Your task to perform on an android device: Show the shopping cart on walmart. Add "apple airpods pro" to the cart on walmart Image 0: 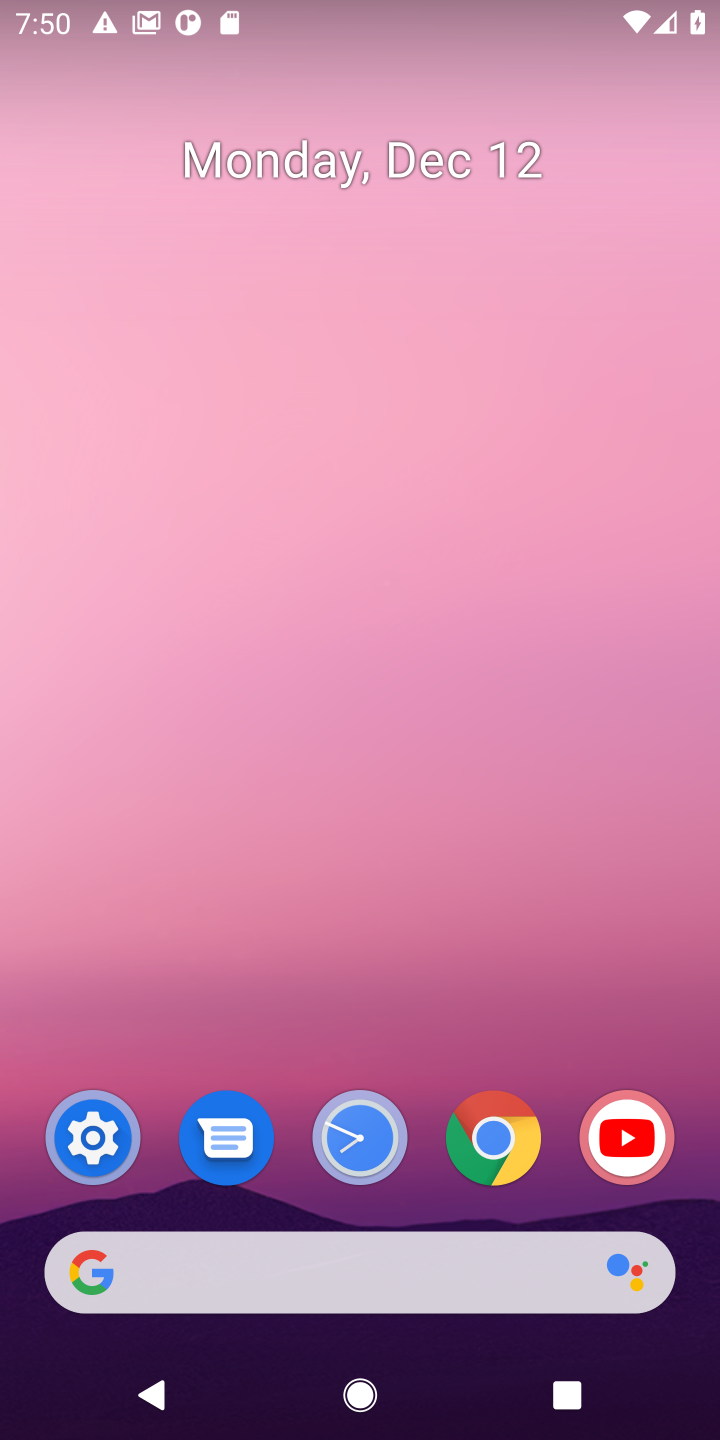
Step 0: drag from (317, 1242) to (269, 242)
Your task to perform on an android device: Show the shopping cart on walmart. Add "apple airpods pro" to the cart on walmart Image 1: 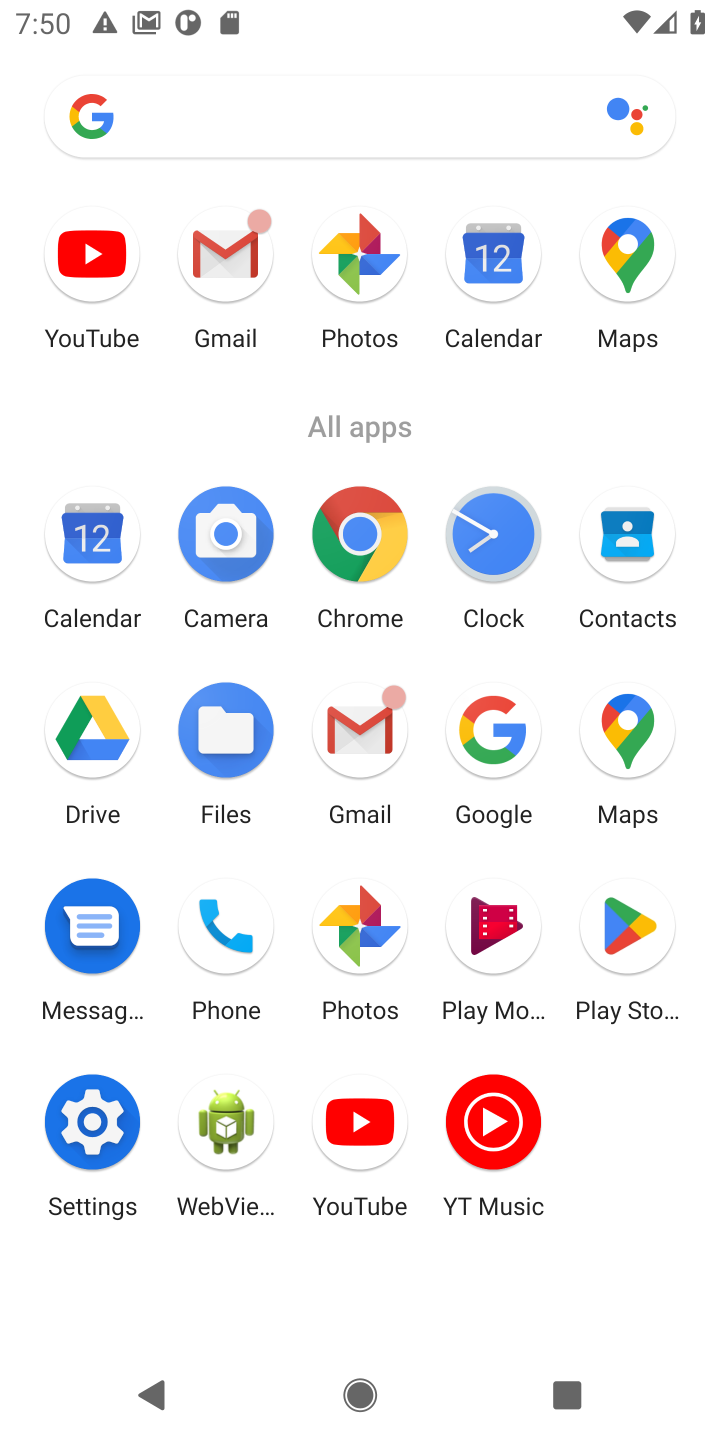
Step 1: click (496, 731)
Your task to perform on an android device: Show the shopping cart on walmart. Add "apple airpods pro" to the cart on walmart Image 2: 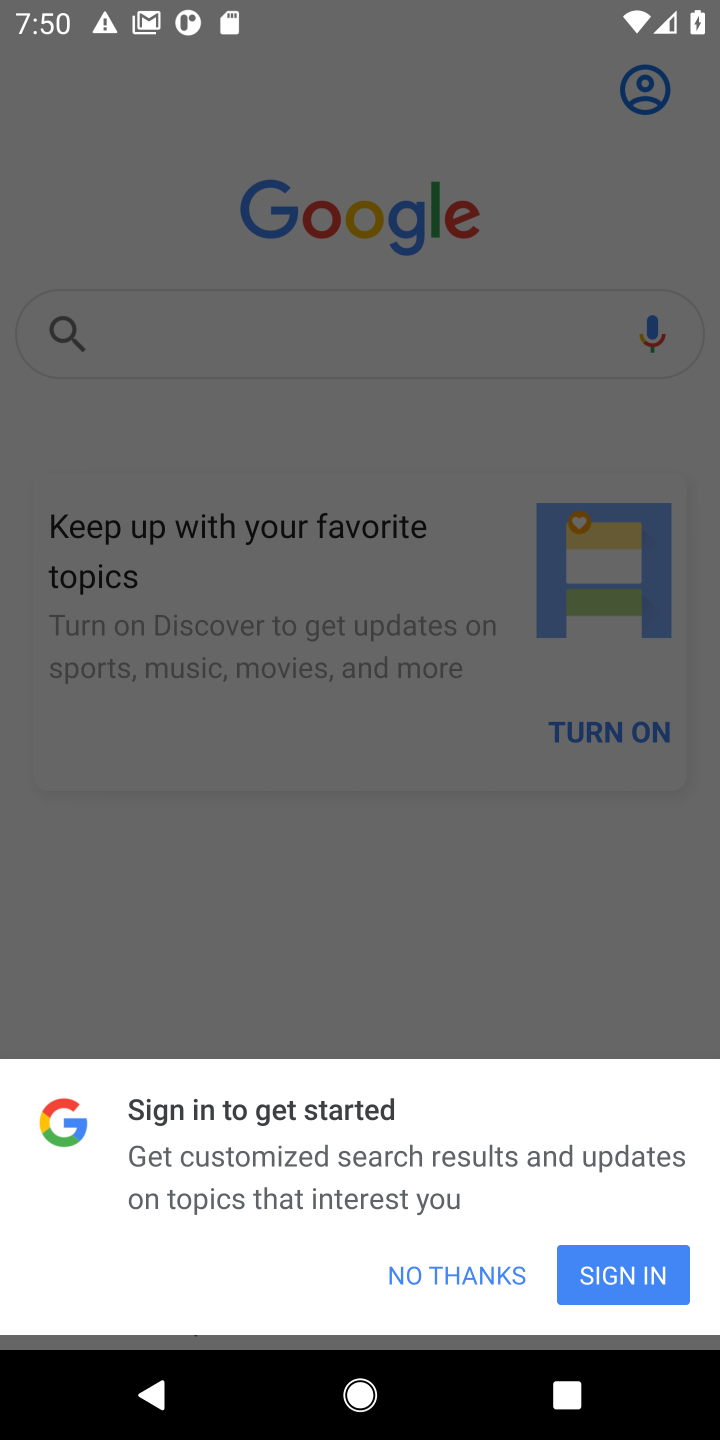
Step 2: click (461, 1252)
Your task to perform on an android device: Show the shopping cart on walmart. Add "apple airpods pro" to the cart on walmart Image 3: 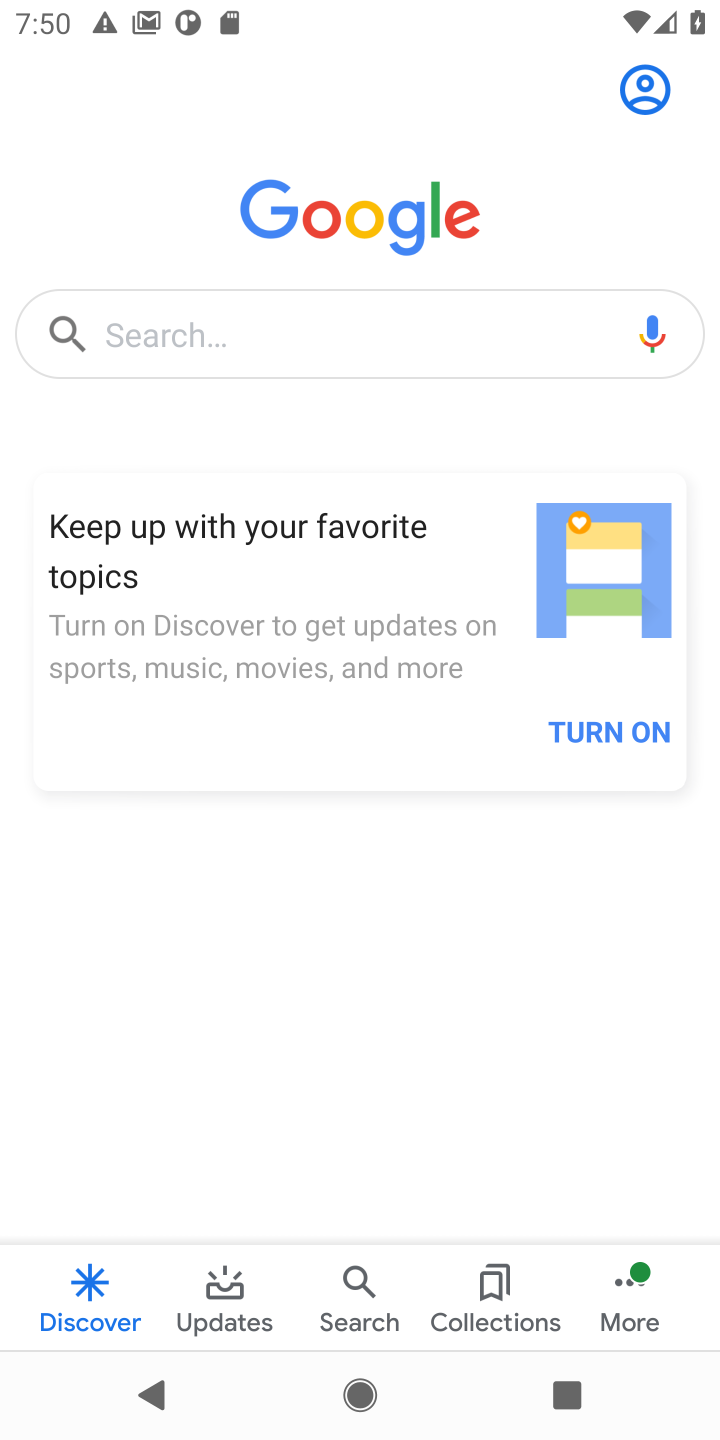
Step 3: click (140, 356)
Your task to perform on an android device: Show the shopping cart on walmart. Add "apple airpods pro" to the cart on walmart Image 4: 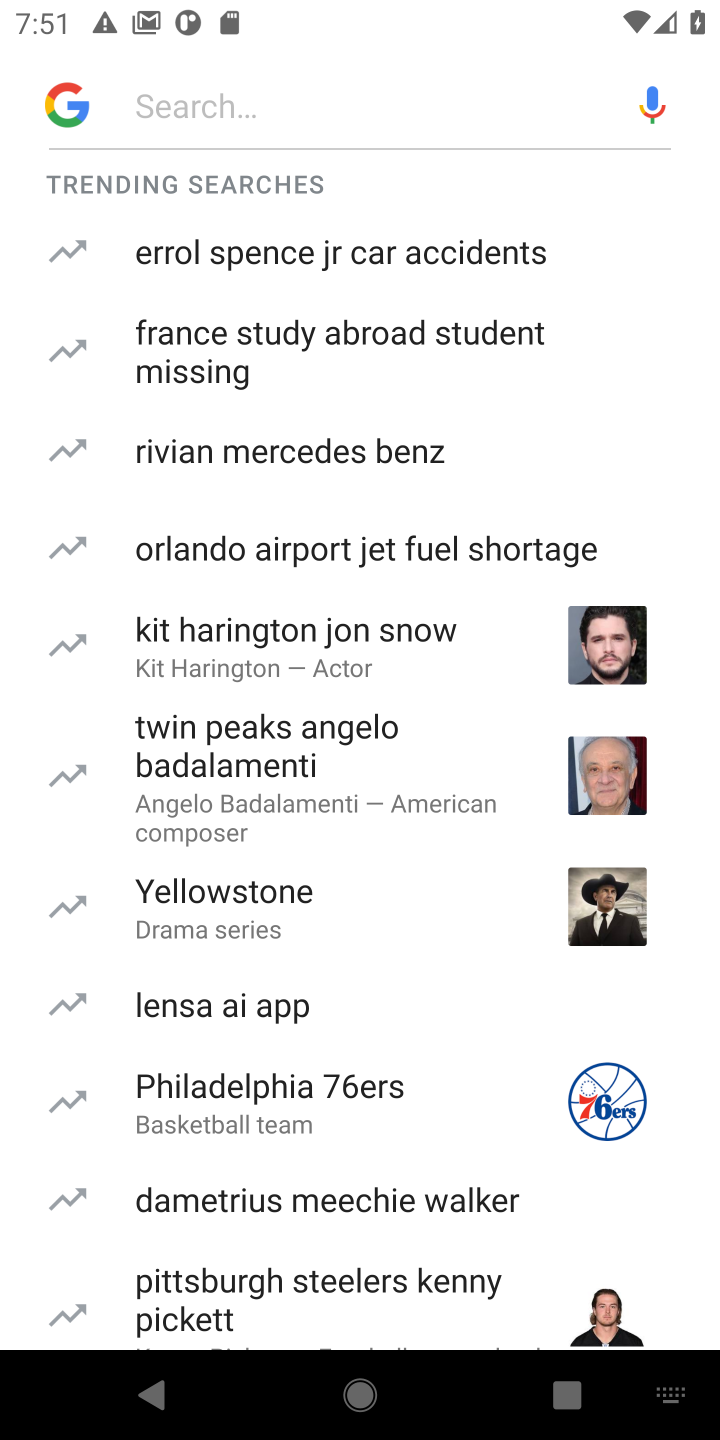
Step 4: type "walmart"
Your task to perform on an android device: Show the shopping cart on walmart. Add "apple airpods pro" to the cart on walmart Image 5: 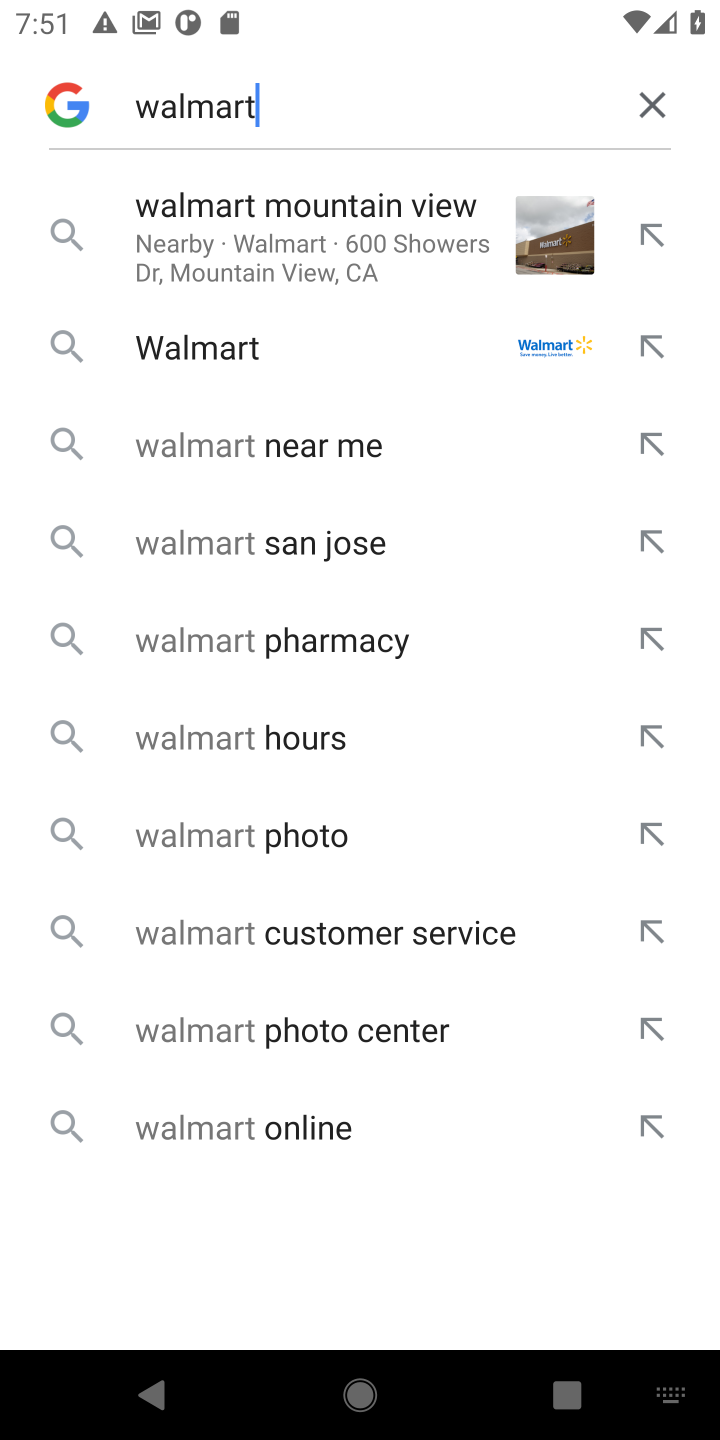
Step 5: click (539, 344)
Your task to perform on an android device: Show the shopping cart on walmart. Add "apple airpods pro" to the cart on walmart Image 6: 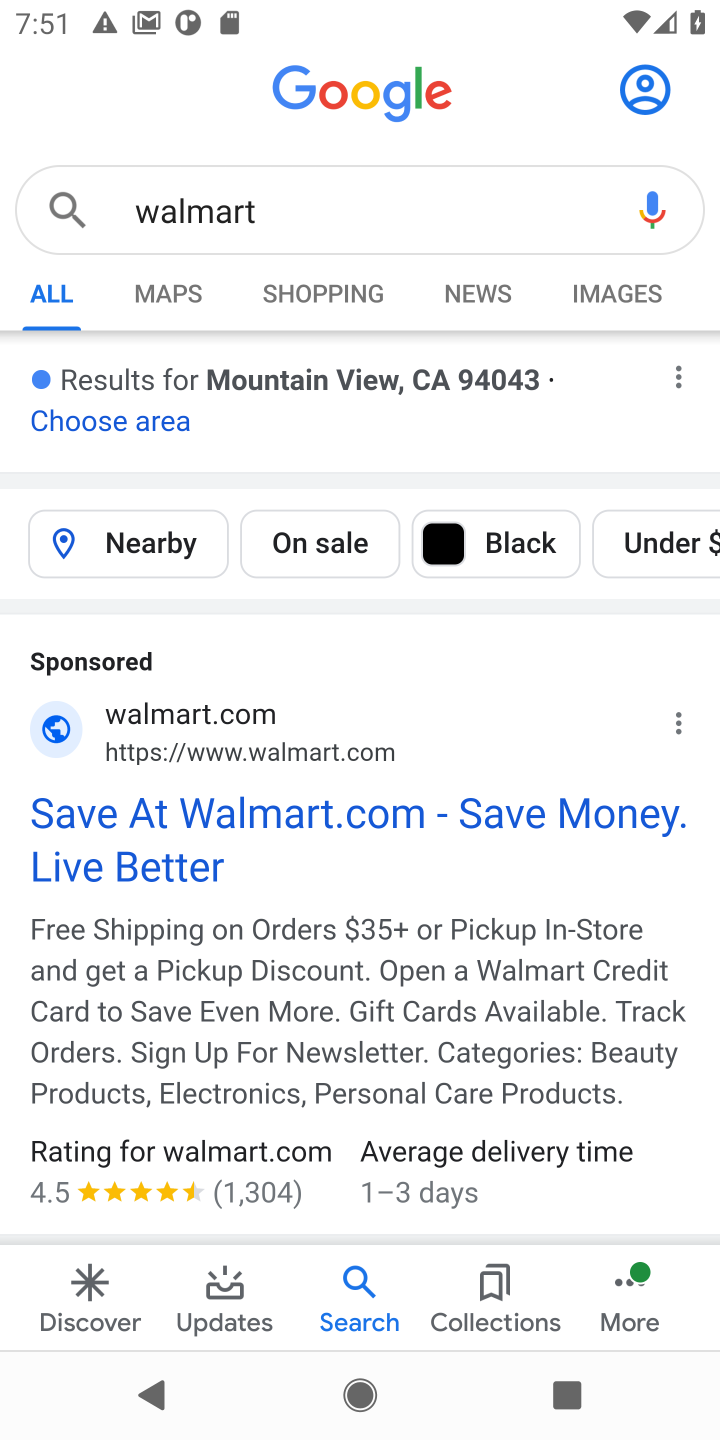
Step 6: click (216, 830)
Your task to perform on an android device: Show the shopping cart on walmart. Add "apple airpods pro" to the cart on walmart Image 7: 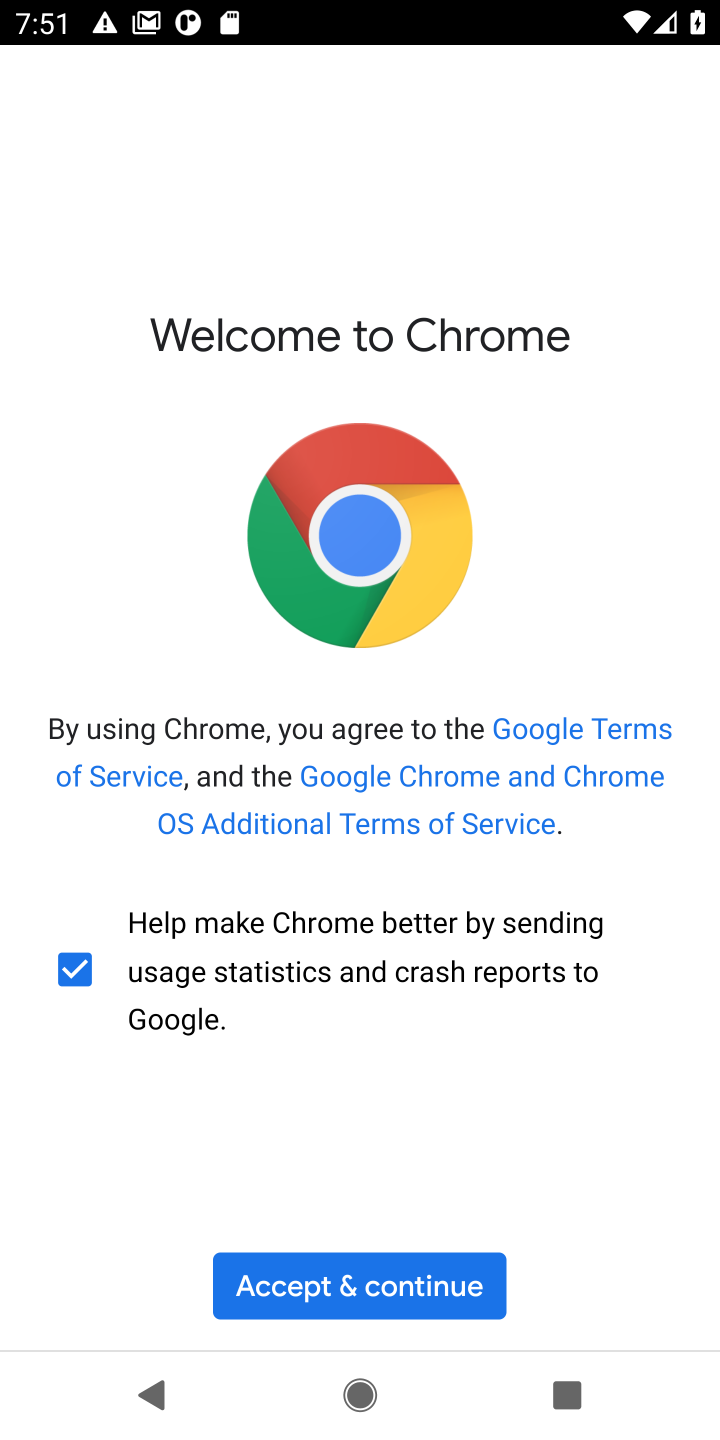
Step 7: click (409, 1297)
Your task to perform on an android device: Show the shopping cart on walmart. Add "apple airpods pro" to the cart on walmart Image 8: 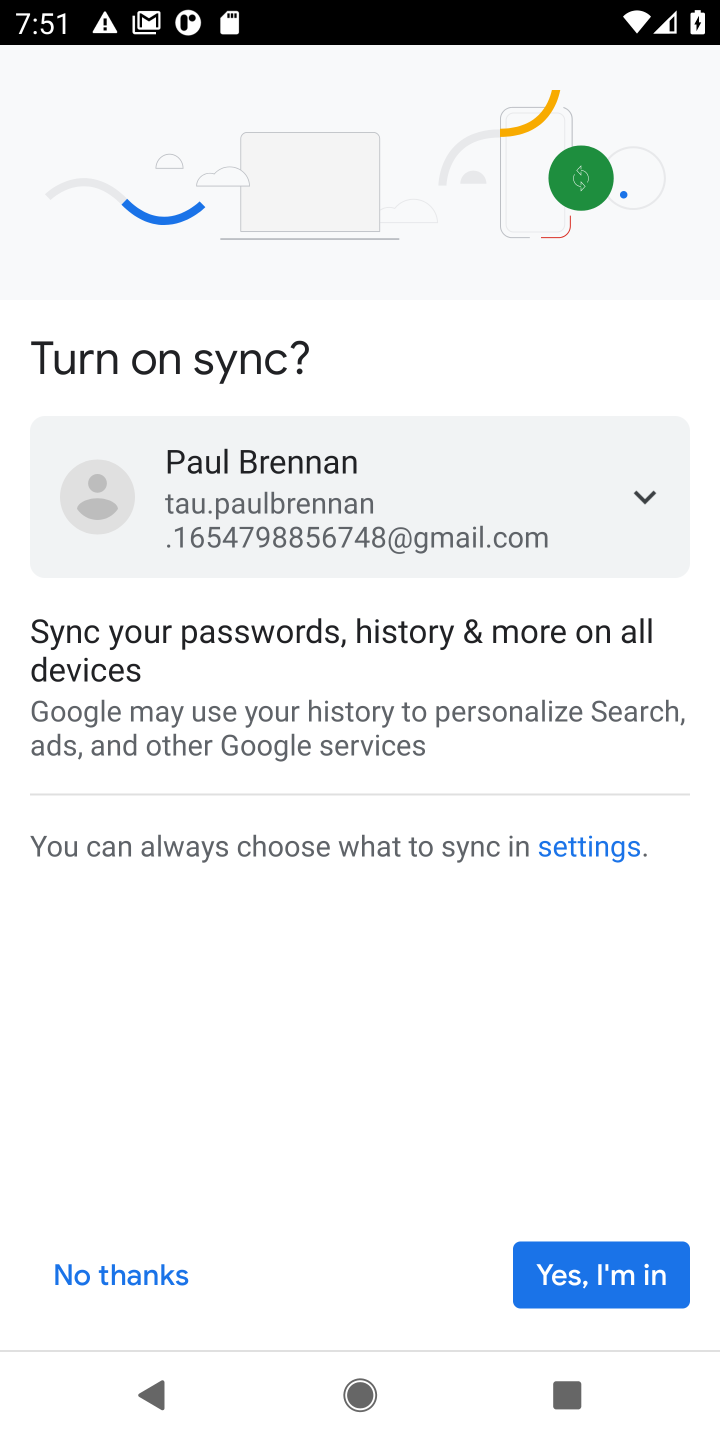
Step 8: click (627, 1295)
Your task to perform on an android device: Show the shopping cart on walmart. Add "apple airpods pro" to the cart on walmart Image 9: 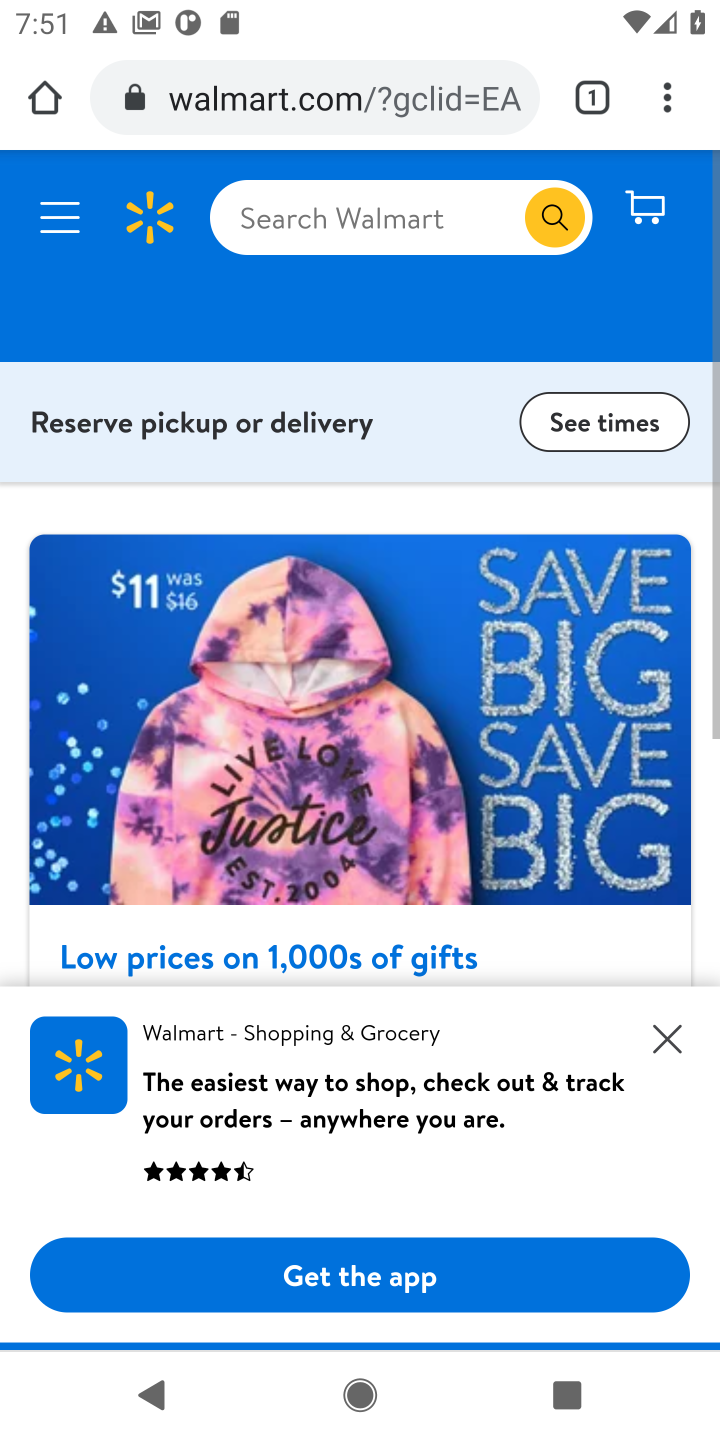
Step 9: click (229, 221)
Your task to perform on an android device: Show the shopping cart on walmart. Add "apple airpods pro" to the cart on walmart Image 10: 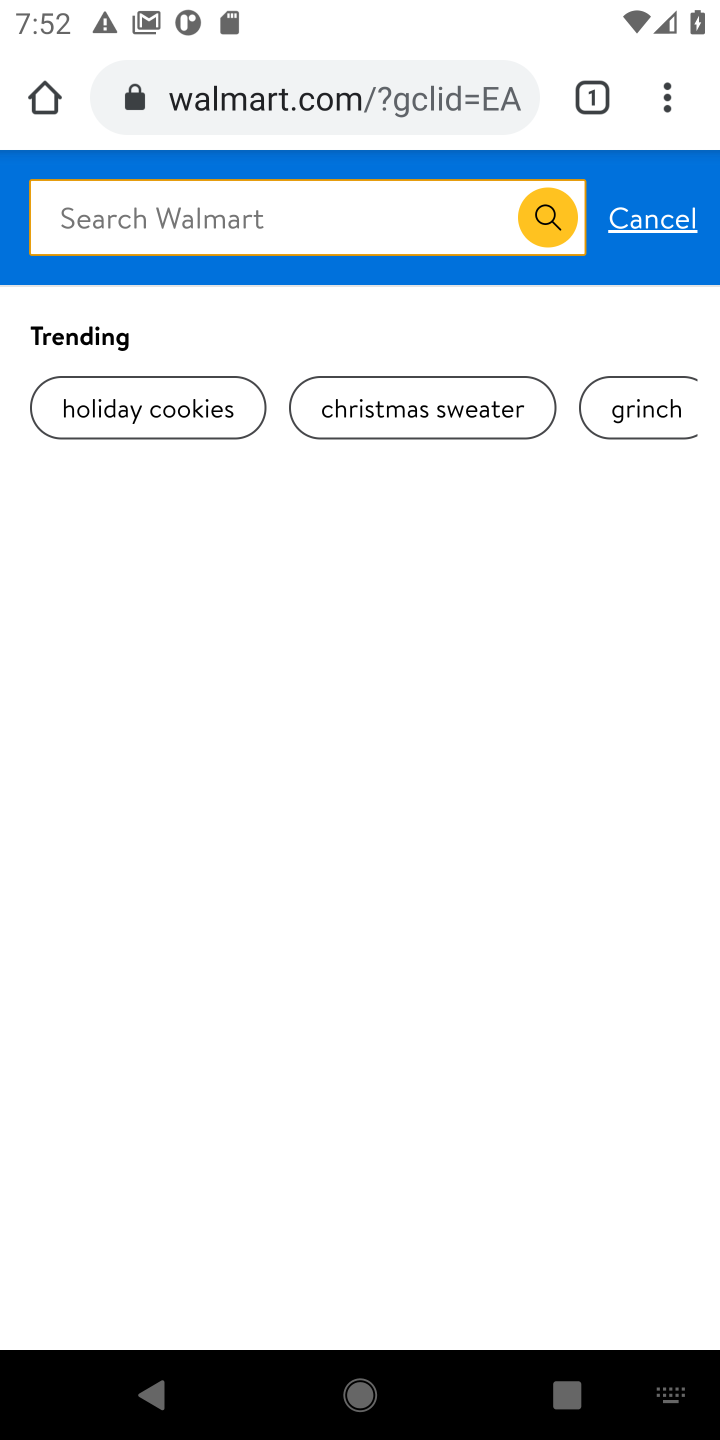
Step 10: type "apple airpods pro"
Your task to perform on an android device: Show the shopping cart on walmart. Add "apple airpods pro" to the cart on walmart Image 11: 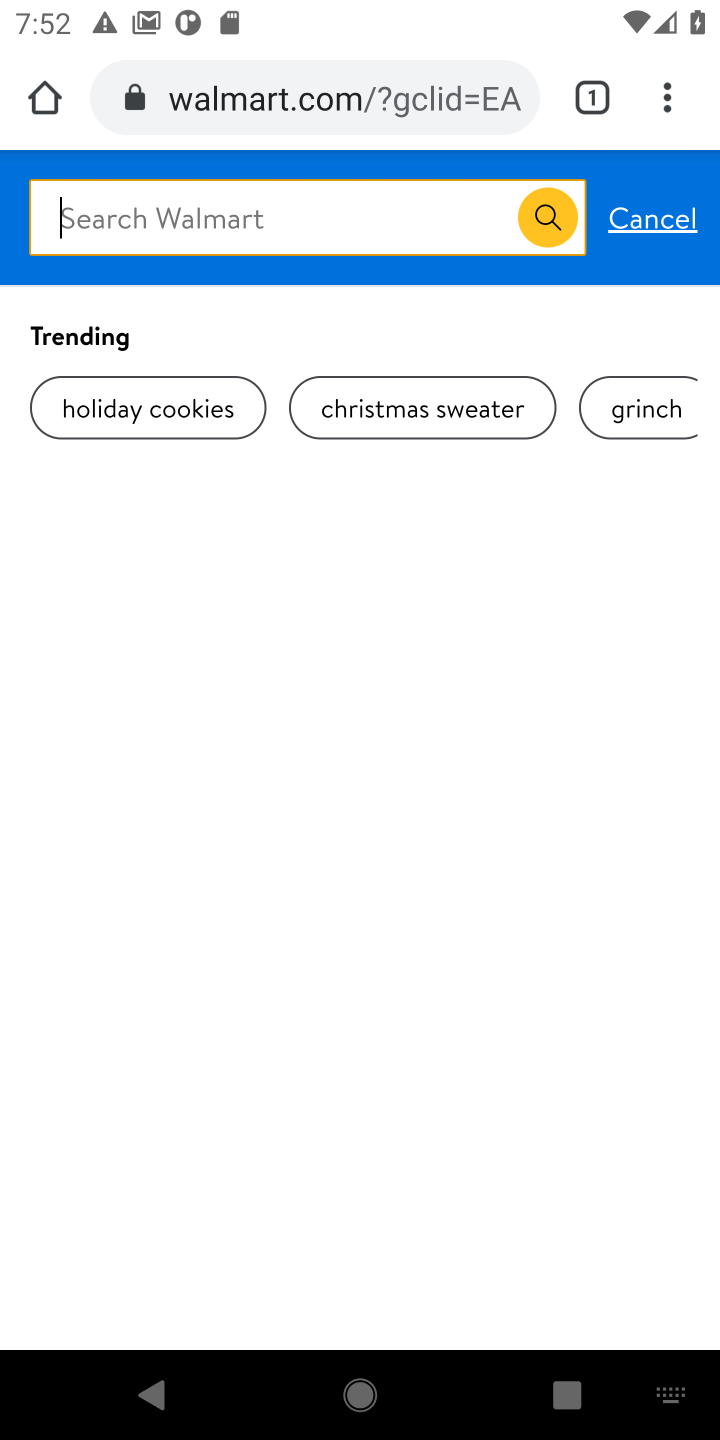
Step 11: click (527, 204)
Your task to perform on an android device: Show the shopping cart on walmart. Add "apple airpods pro" to the cart on walmart Image 12: 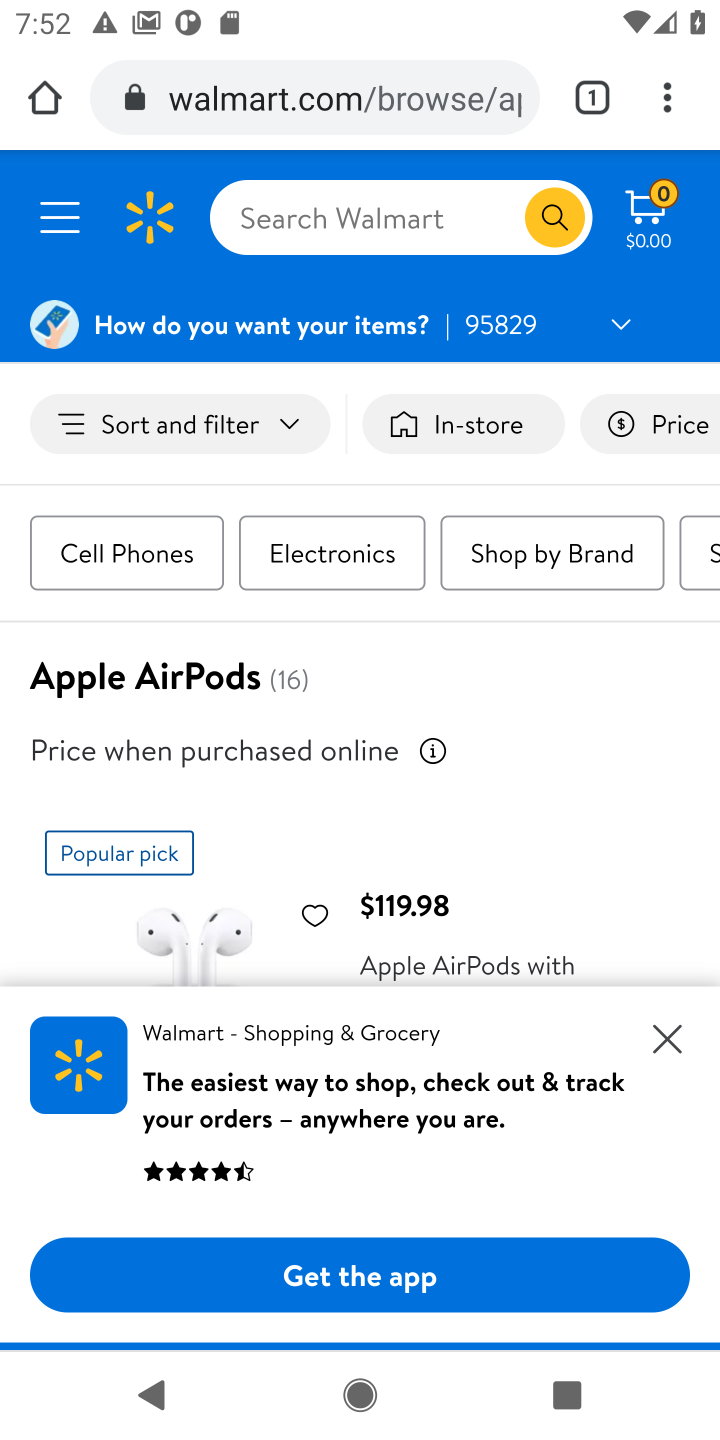
Step 12: click (674, 1032)
Your task to perform on an android device: Show the shopping cart on walmart. Add "apple airpods pro" to the cart on walmart Image 13: 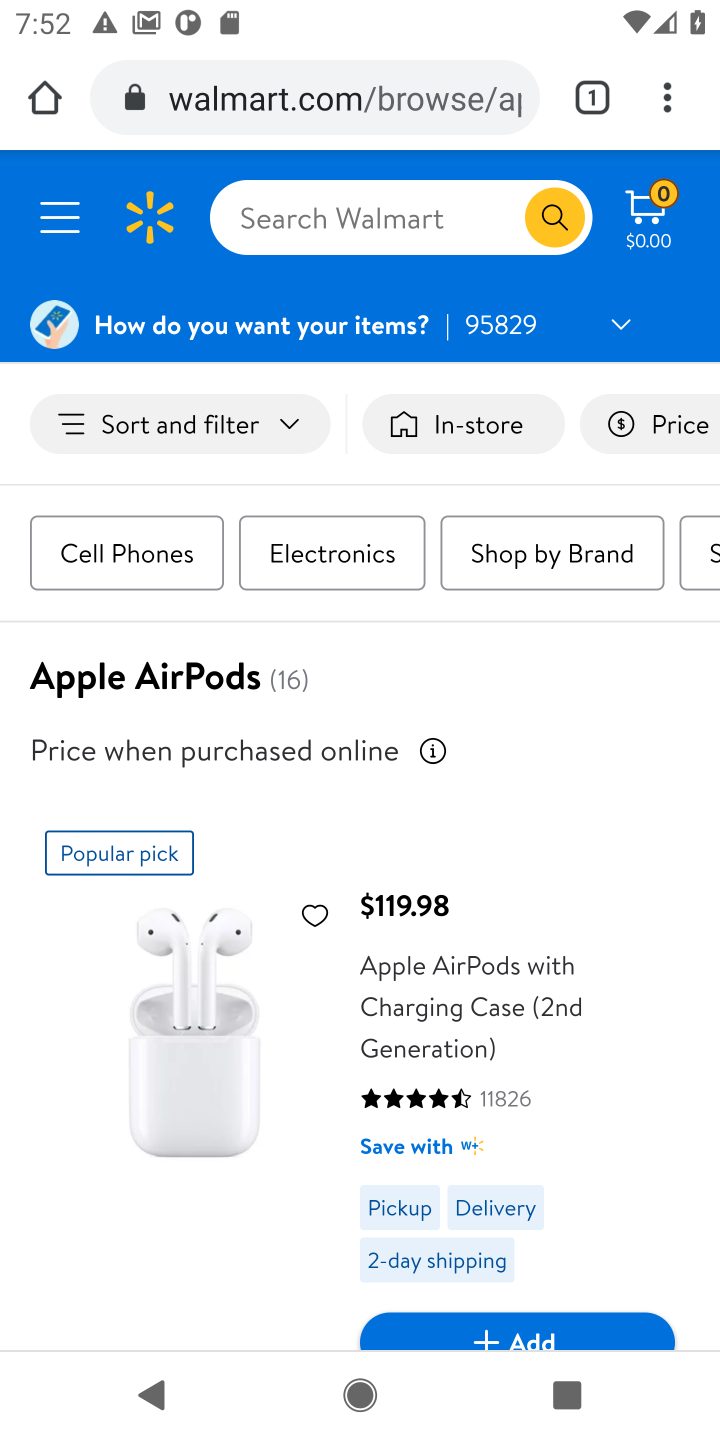
Step 13: drag from (383, 1133) to (423, 343)
Your task to perform on an android device: Show the shopping cart on walmart. Add "apple airpods pro" to the cart on walmart Image 14: 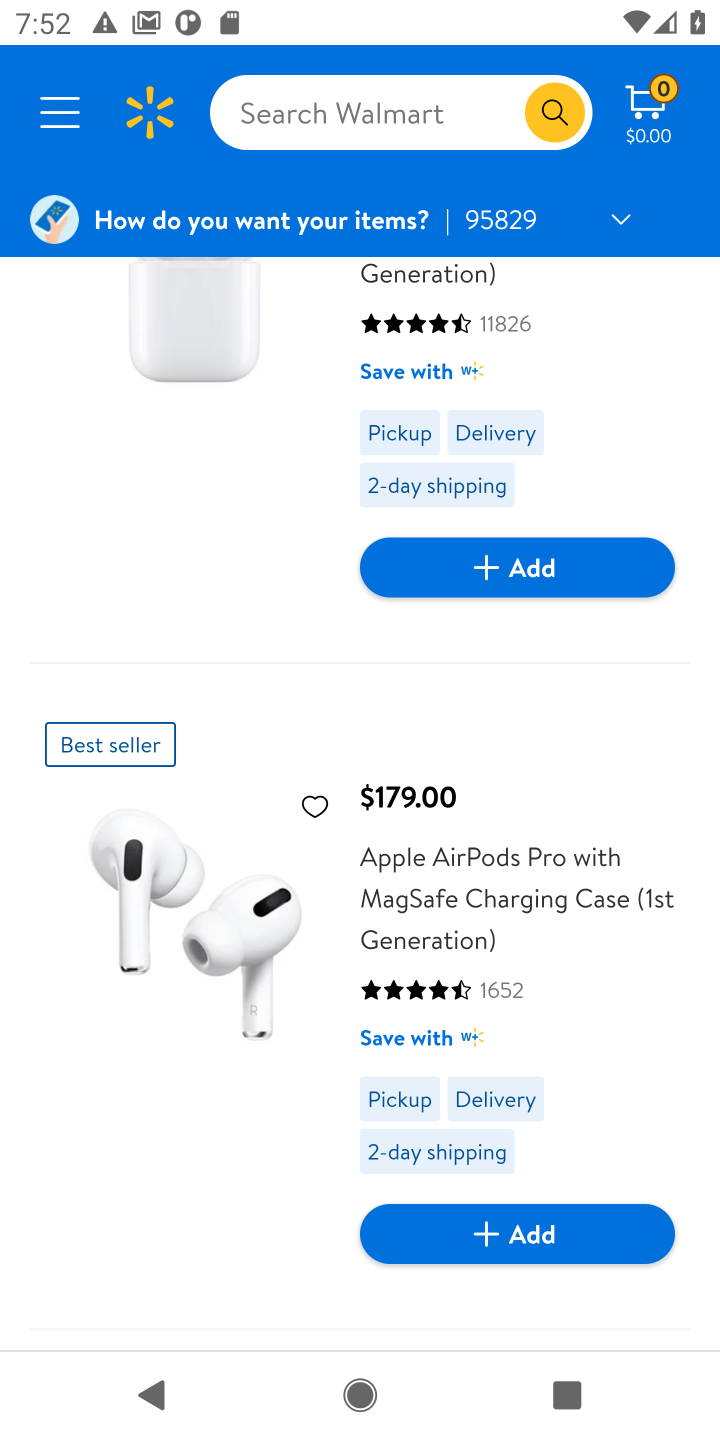
Step 14: click (507, 553)
Your task to perform on an android device: Show the shopping cart on walmart. Add "apple airpods pro" to the cart on walmart Image 15: 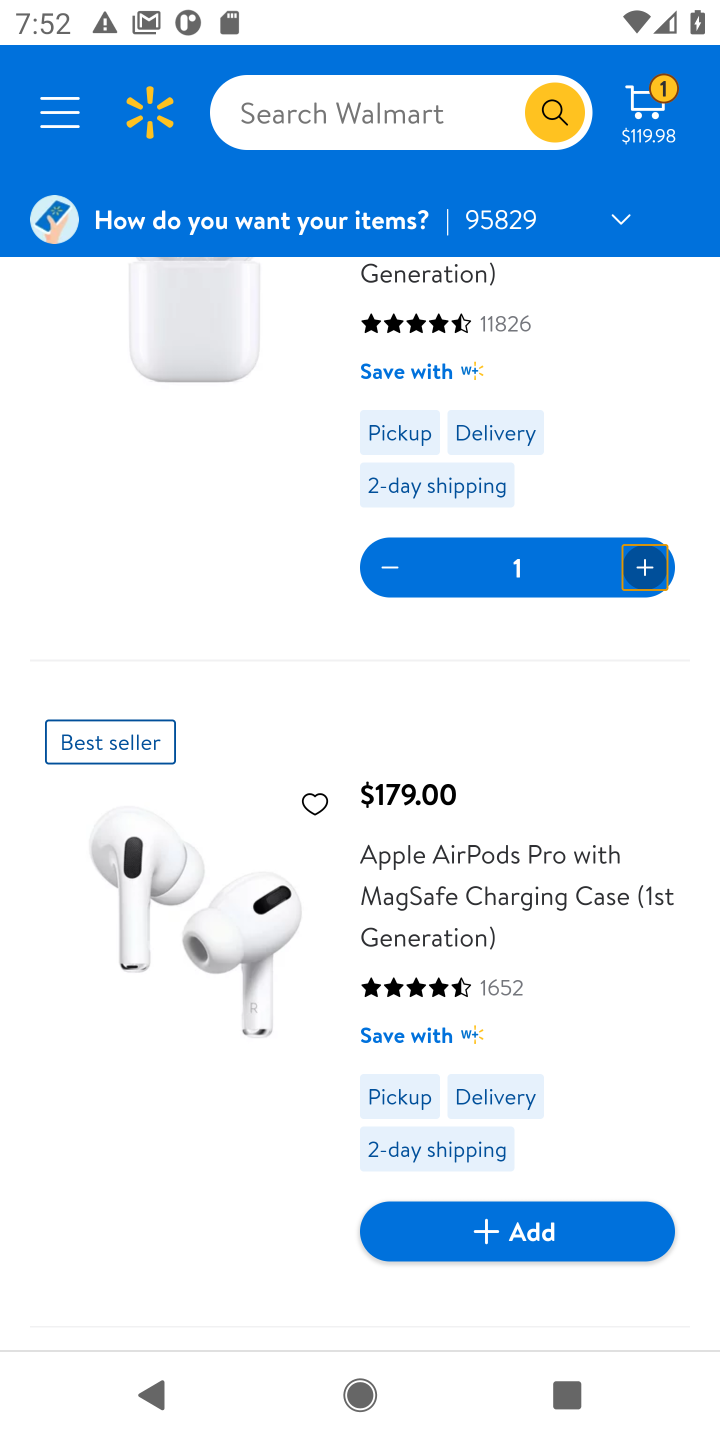
Step 15: task complete